Your task to perform on an android device: turn notification dots off Image 0: 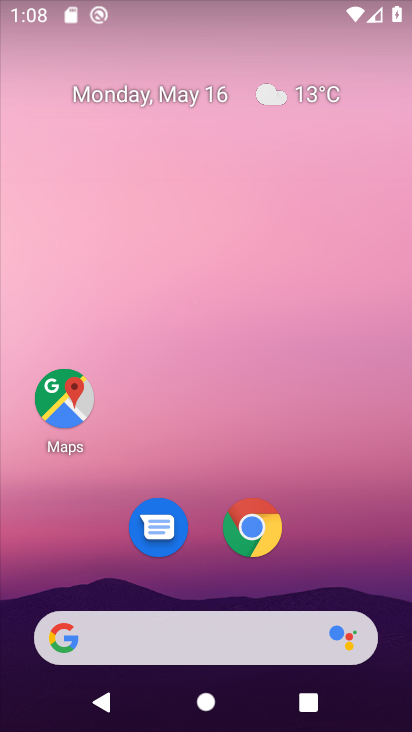
Step 0: drag from (355, 558) to (300, 25)
Your task to perform on an android device: turn notification dots off Image 1: 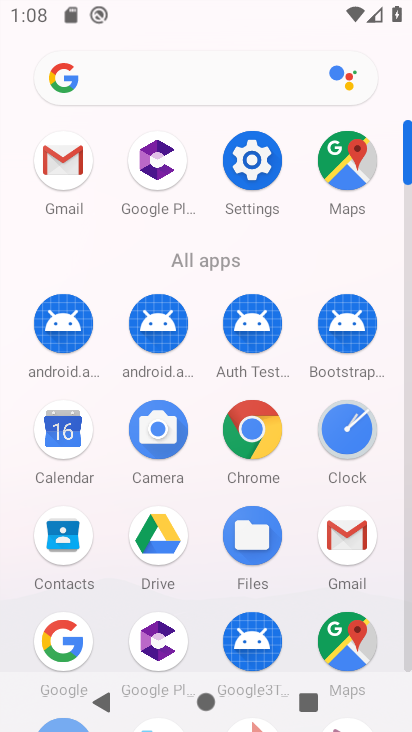
Step 1: click (247, 163)
Your task to perform on an android device: turn notification dots off Image 2: 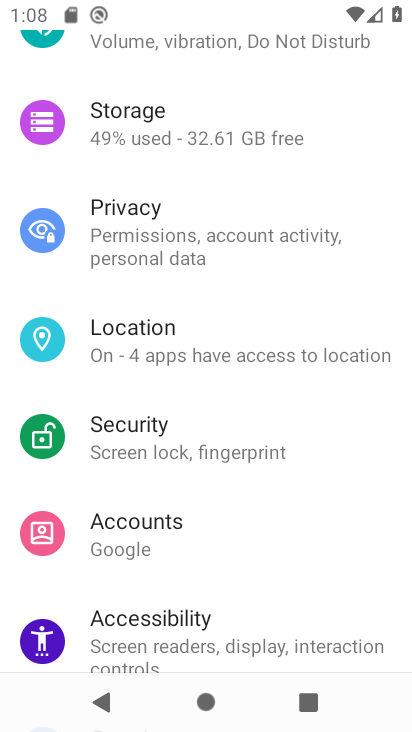
Step 2: drag from (260, 68) to (289, 584)
Your task to perform on an android device: turn notification dots off Image 3: 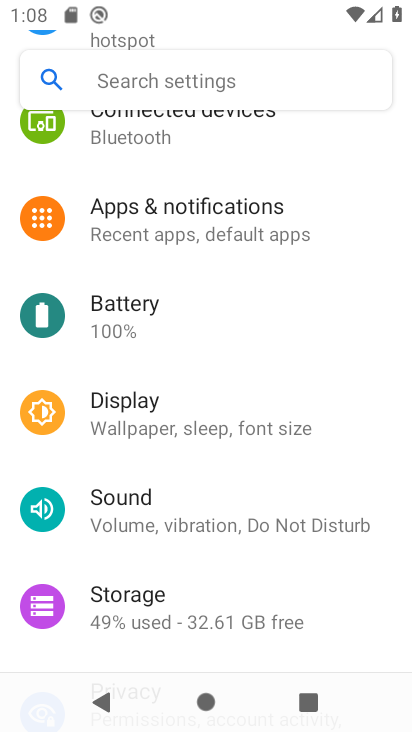
Step 3: click (229, 229)
Your task to perform on an android device: turn notification dots off Image 4: 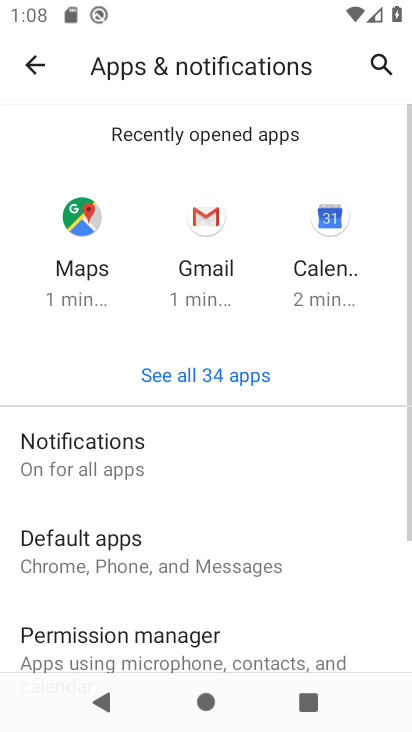
Step 4: drag from (348, 571) to (322, 158)
Your task to perform on an android device: turn notification dots off Image 5: 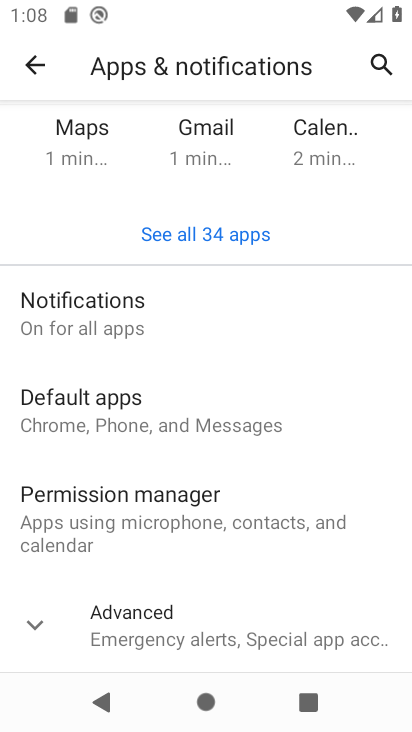
Step 5: click (240, 632)
Your task to perform on an android device: turn notification dots off Image 6: 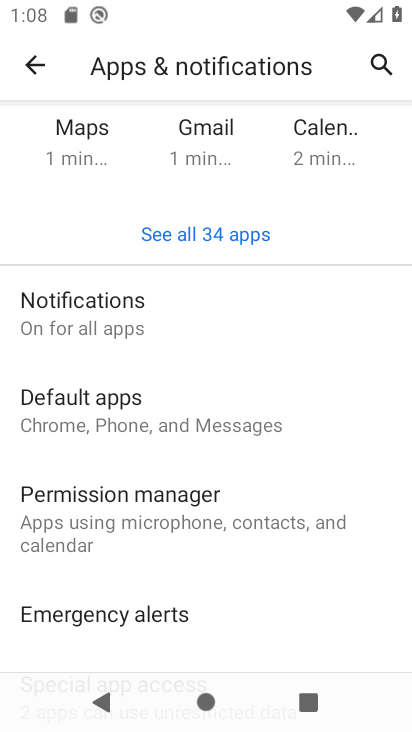
Step 6: drag from (285, 609) to (255, 280)
Your task to perform on an android device: turn notification dots off Image 7: 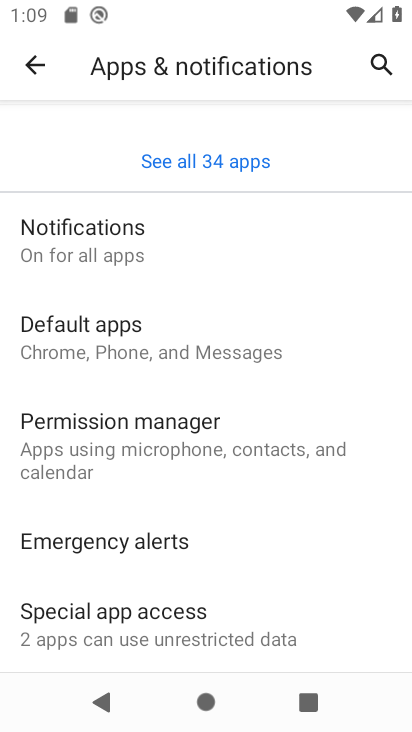
Step 7: click (62, 252)
Your task to perform on an android device: turn notification dots off Image 8: 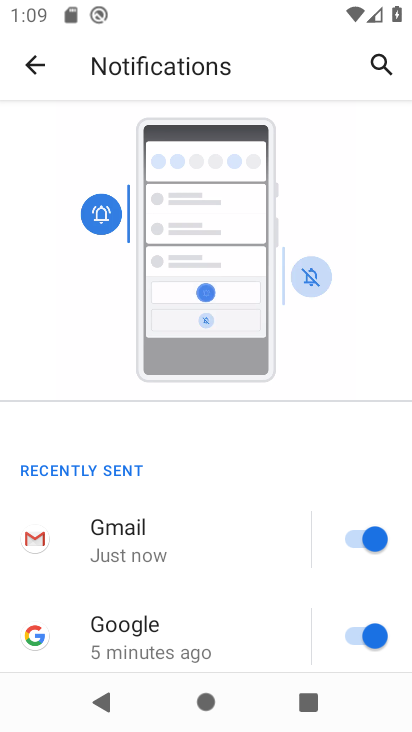
Step 8: drag from (250, 591) to (276, 257)
Your task to perform on an android device: turn notification dots off Image 9: 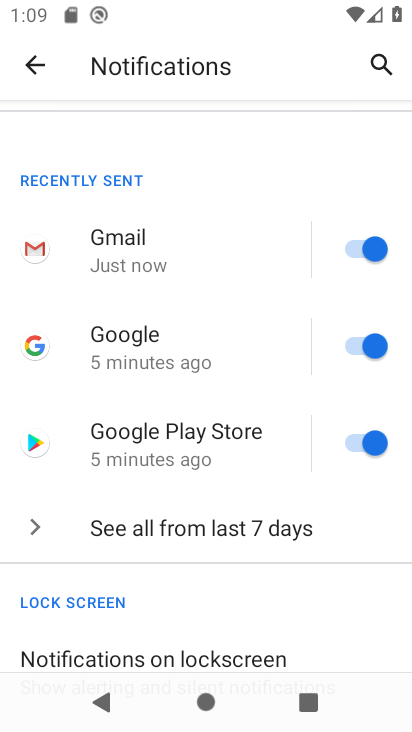
Step 9: drag from (221, 618) to (145, 216)
Your task to perform on an android device: turn notification dots off Image 10: 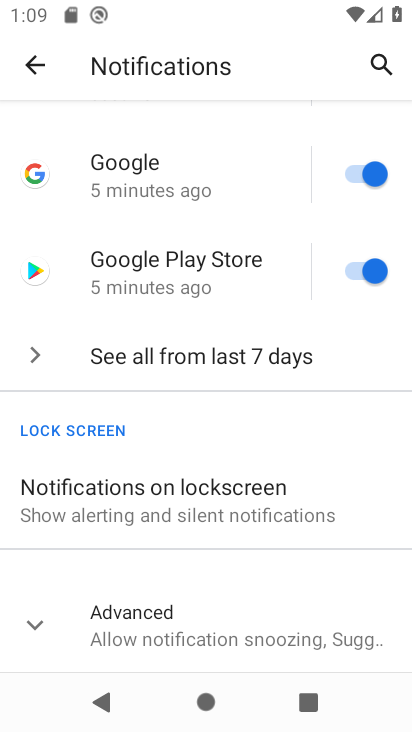
Step 10: click (224, 632)
Your task to perform on an android device: turn notification dots off Image 11: 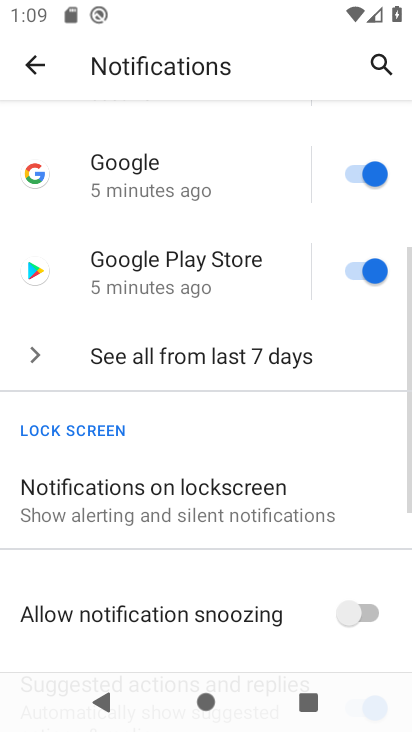
Step 11: drag from (287, 616) to (323, 259)
Your task to perform on an android device: turn notification dots off Image 12: 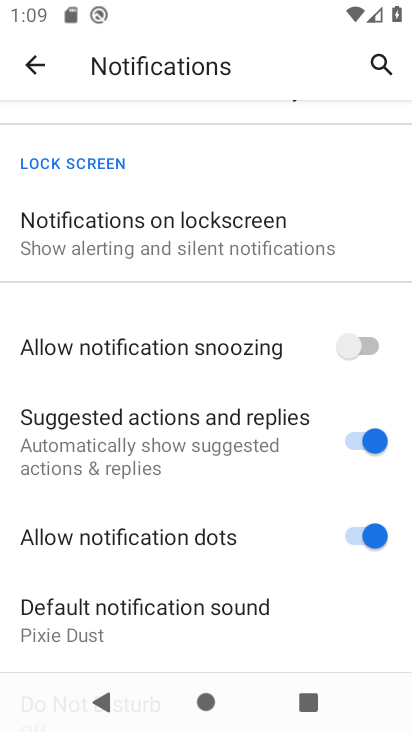
Step 12: click (349, 534)
Your task to perform on an android device: turn notification dots off Image 13: 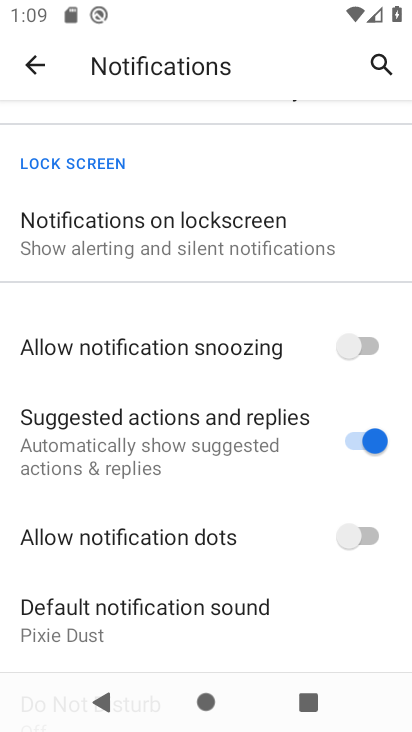
Step 13: task complete